Your task to perform on an android device: Turn on the flashlight Image 0: 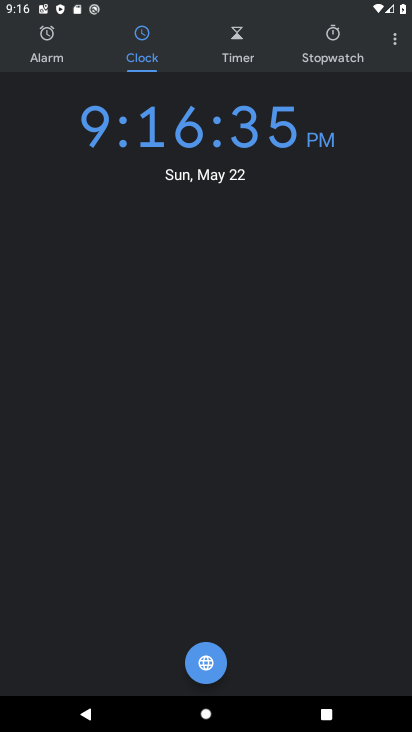
Step 0: press home button
Your task to perform on an android device: Turn on the flashlight Image 1: 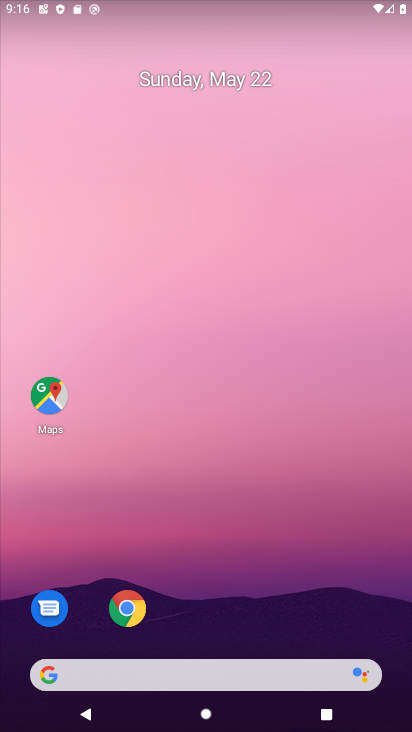
Step 1: drag from (293, 583) to (308, 125)
Your task to perform on an android device: Turn on the flashlight Image 2: 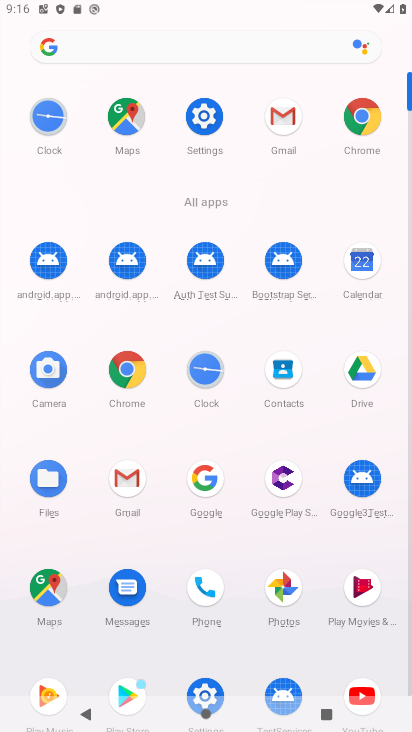
Step 2: click (215, 118)
Your task to perform on an android device: Turn on the flashlight Image 3: 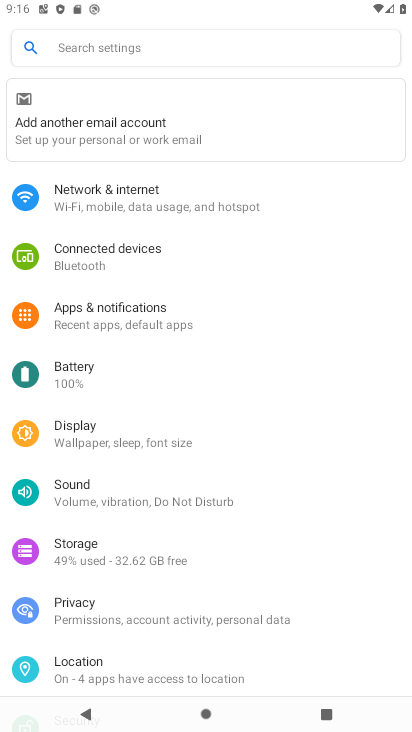
Step 3: click (109, 437)
Your task to perform on an android device: Turn on the flashlight Image 4: 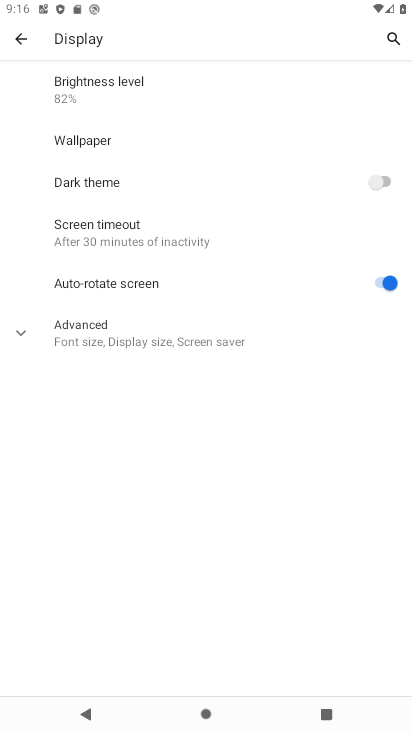
Step 4: task complete